Your task to perform on an android device: turn on the 12-hour format for clock Image 0: 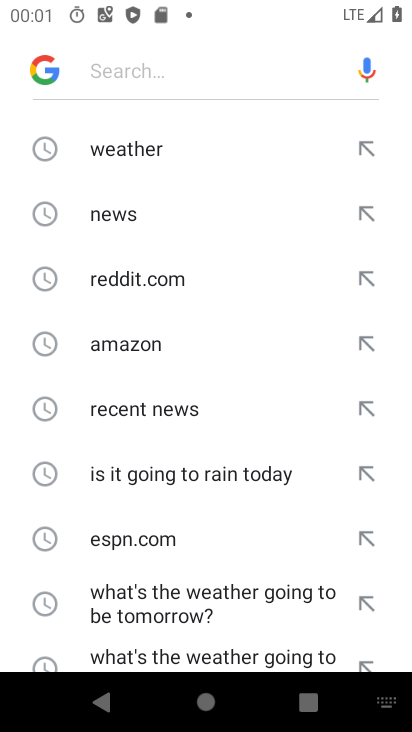
Step 0: press home button
Your task to perform on an android device: turn on the 12-hour format for clock Image 1: 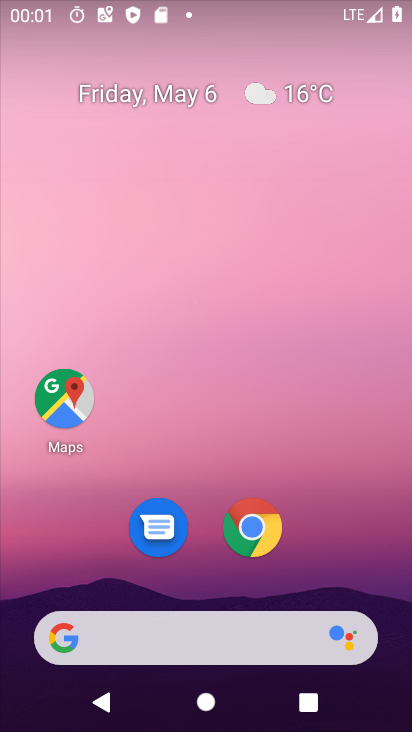
Step 1: drag from (221, 546) to (246, 175)
Your task to perform on an android device: turn on the 12-hour format for clock Image 2: 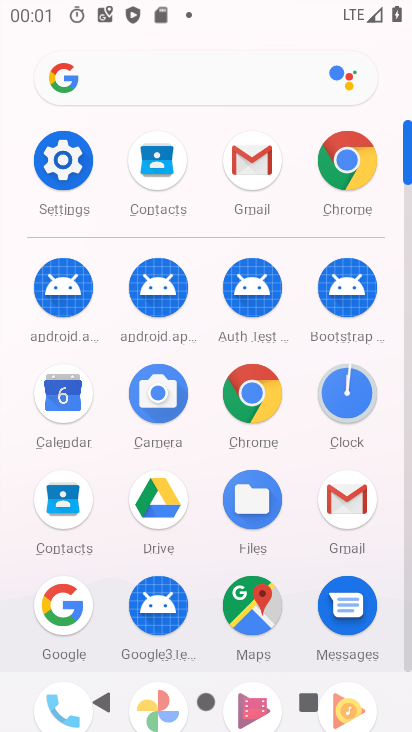
Step 2: click (65, 167)
Your task to perform on an android device: turn on the 12-hour format for clock Image 3: 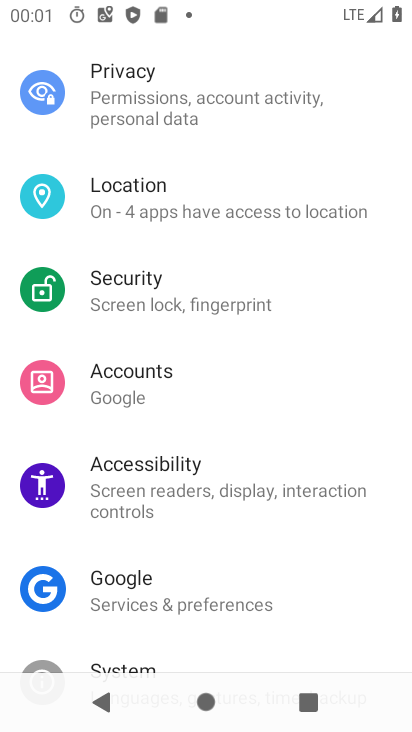
Step 3: drag from (156, 459) to (211, 87)
Your task to perform on an android device: turn on the 12-hour format for clock Image 4: 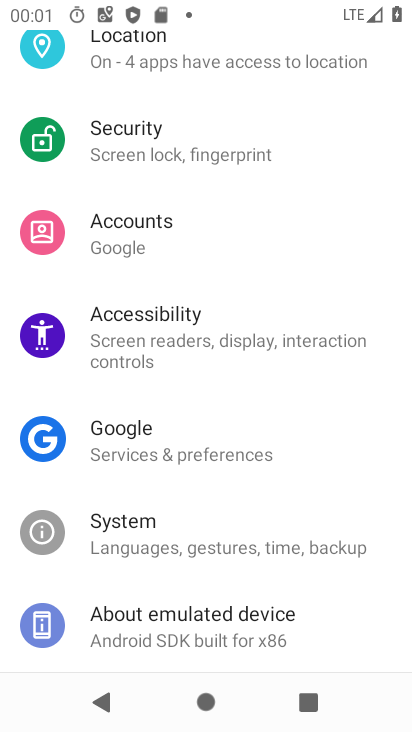
Step 4: click (170, 531)
Your task to perform on an android device: turn on the 12-hour format for clock Image 5: 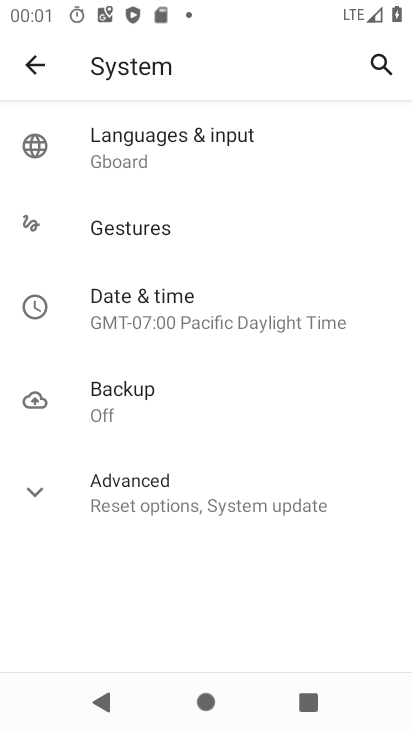
Step 5: click (171, 318)
Your task to perform on an android device: turn on the 12-hour format for clock Image 6: 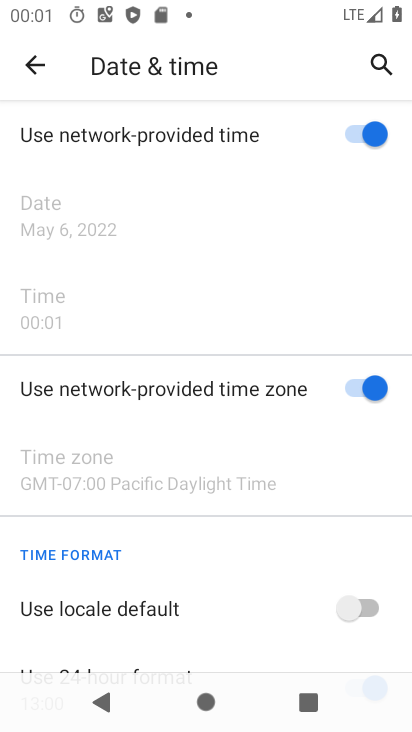
Step 6: drag from (177, 594) to (245, 264)
Your task to perform on an android device: turn on the 12-hour format for clock Image 7: 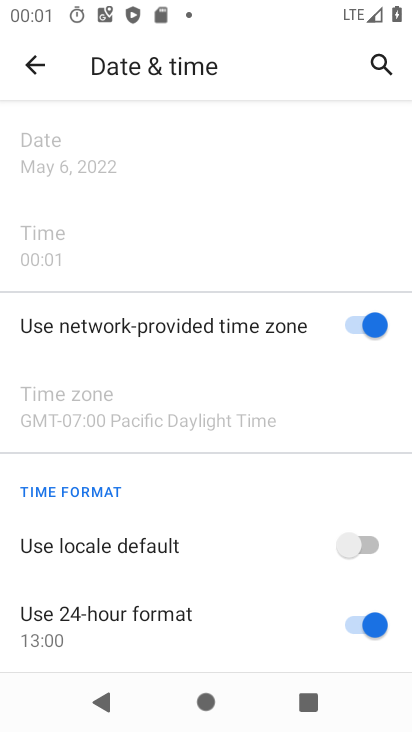
Step 7: click (371, 538)
Your task to perform on an android device: turn on the 12-hour format for clock Image 8: 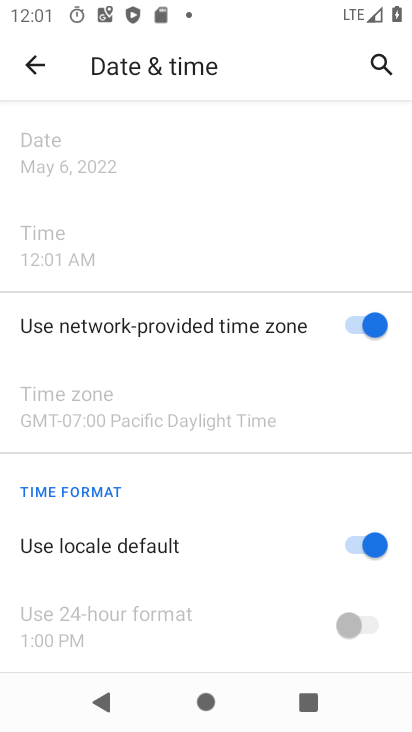
Step 8: task complete